Your task to perform on an android device: read, delete, or share a saved page in the chrome app Image 0: 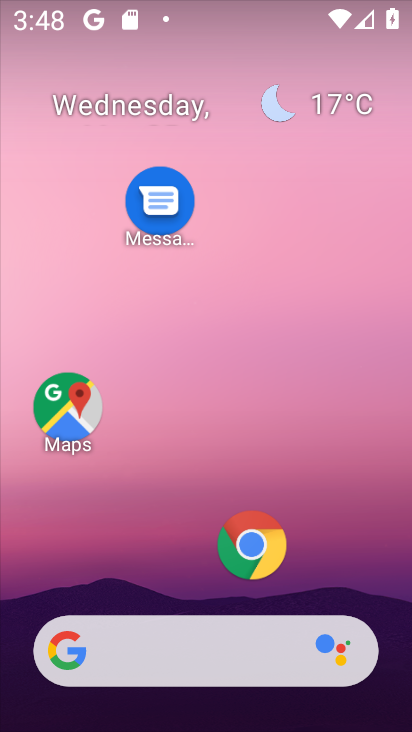
Step 0: click (253, 547)
Your task to perform on an android device: read, delete, or share a saved page in the chrome app Image 1: 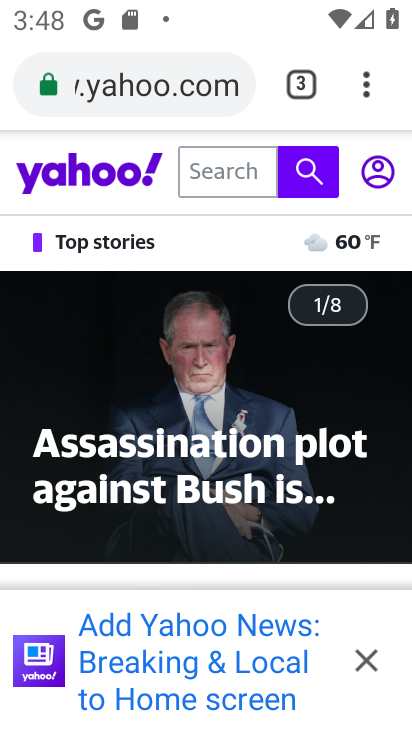
Step 1: click (376, 92)
Your task to perform on an android device: read, delete, or share a saved page in the chrome app Image 2: 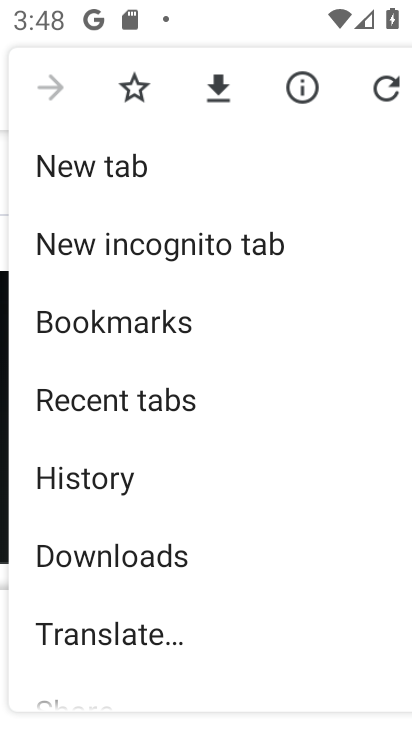
Step 2: click (125, 556)
Your task to perform on an android device: read, delete, or share a saved page in the chrome app Image 3: 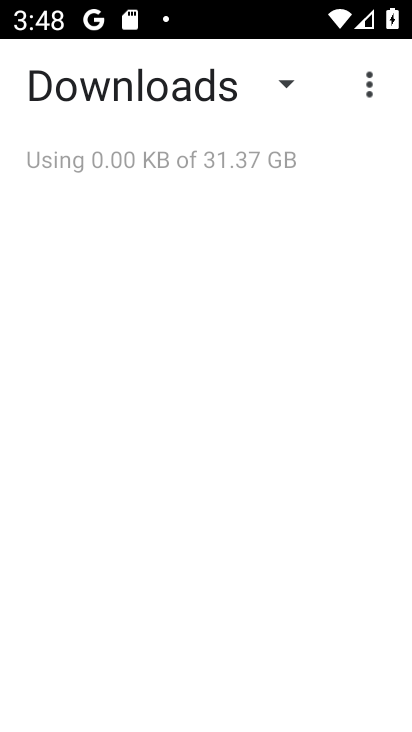
Step 3: click (279, 78)
Your task to perform on an android device: read, delete, or share a saved page in the chrome app Image 4: 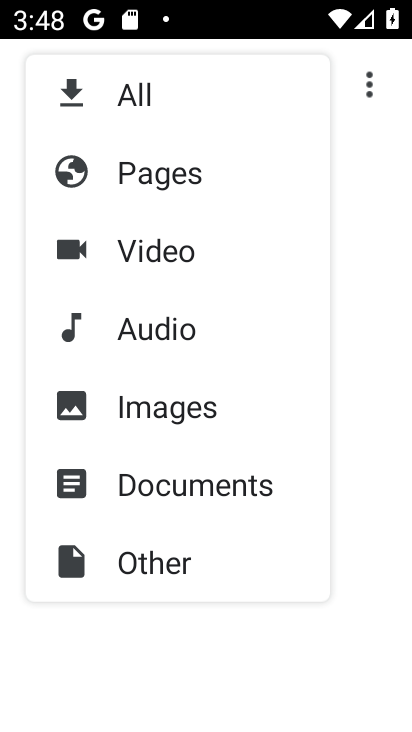
Step 4: click (152, 179)
Your task to perform on an android device: read, delete, or share a saved page in the chrome app Image 5: 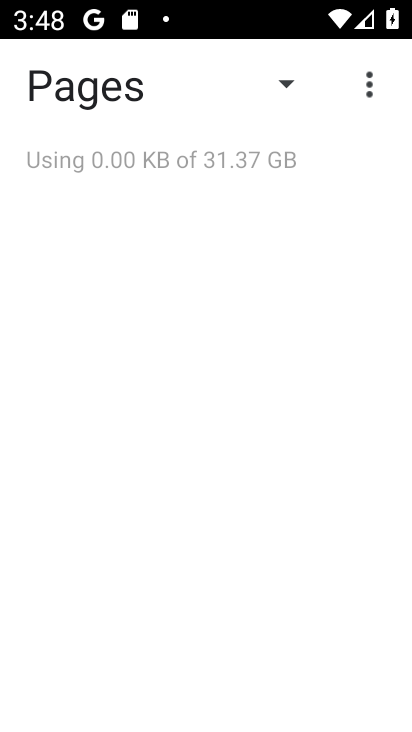
Step 5: task complete